Your task to perform on an android device: open app "Gmail" (install if not already installed), go to login, and select forgot password Image 0: 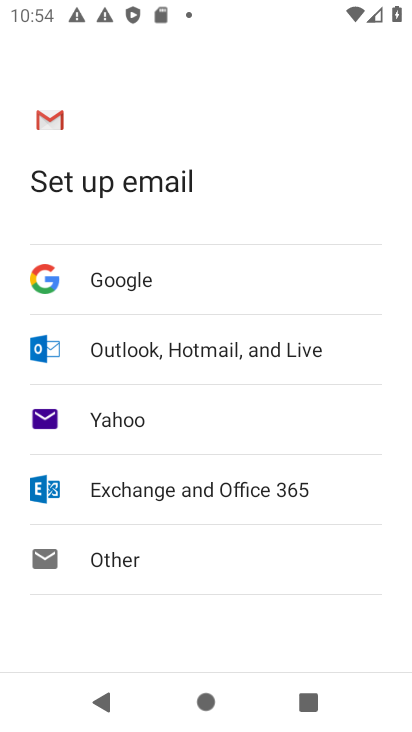
Step 0: press back button
Your task to perform on an android device: open app "Gmail" (install if not already installed), go to login, and select forgot password Image 1: 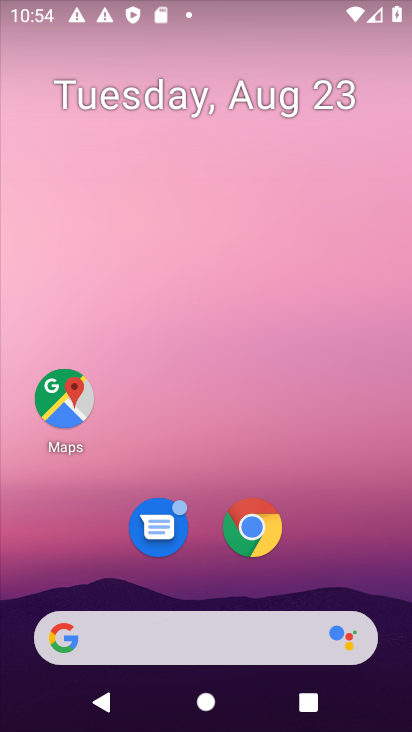
Step 1: drag from (222, 579) to (352, 48)
Your task to perform on an android device: open app "Gmail" (install if not already installed), go to login, and select forgot password Image 2: 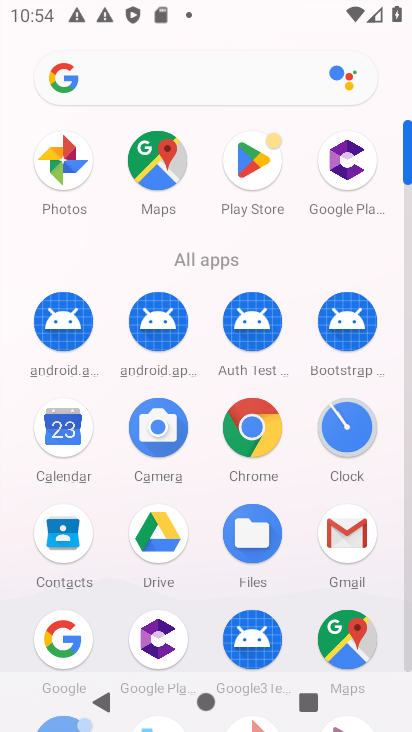
Step 2: click (250, 160)
Your task to perform on an android device: open app "Gmail" (install if not already installed), go to login, and select forgot password Image 3: 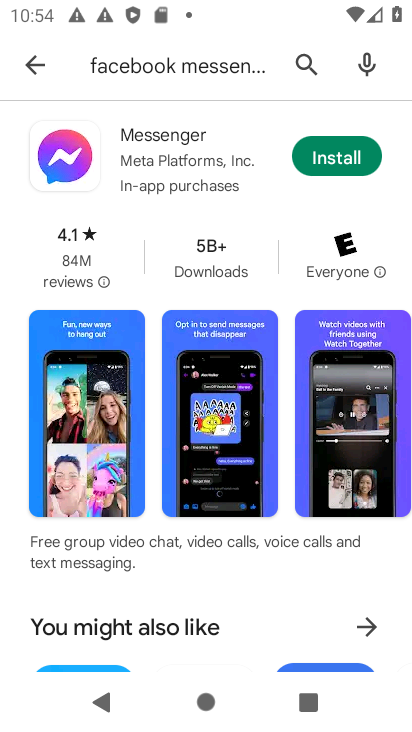
Step 3: click (297, 63)
Your task to perform on an android device: open app "Gmail" (install if not already installed), go to login, and select forgot password Image 4: 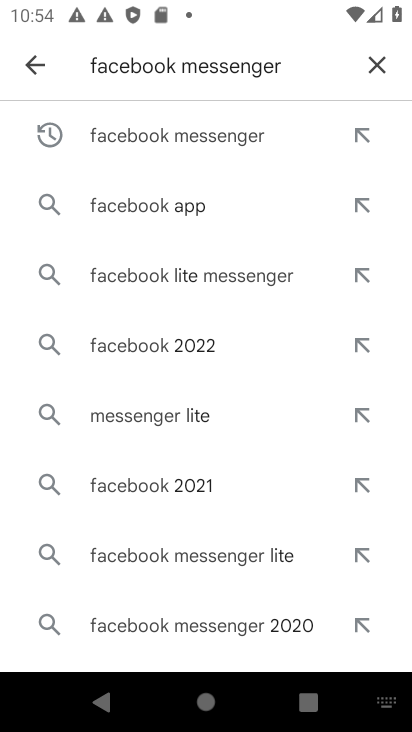
Step 4: click (370, 68)
Your task to perform on an android device: open app "Gmail" (install if not already installed), go to login, and select forgot password Image 5: 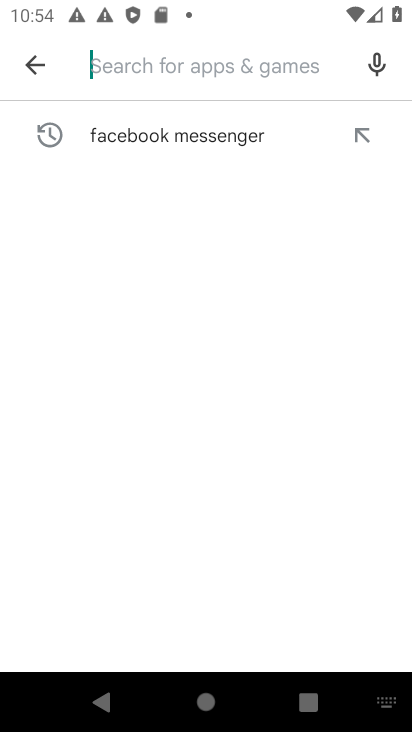
Step 5: click (162, 69)
Your task to perform on an android device: open app "Gmail" (install if not already installed), go to login, and select forgot password Image 6: 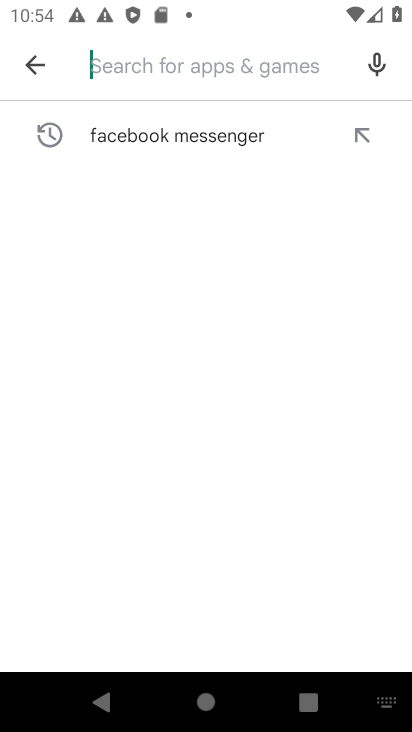
Step 6: type "Gmail"
Your task to perform on an android device: open app "Gmail" (install if not already installed), go to login, and select forgot password Image 7: 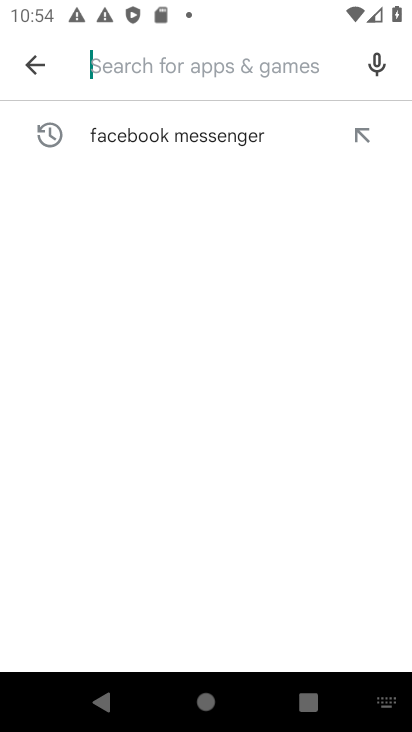
Step 7: click (268, 485)
Your task to perform on an android device: open app "Gmail" (install if not already installed), go to login, and select forgot password Image 8: 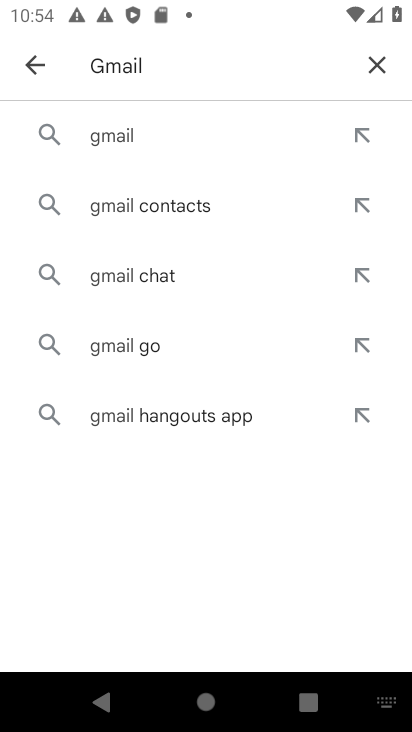
Step 8: click (134, 122)
Your task to perform on an android device: open app "Gmail" (install if not already installed), go to login, and select forgot password Image 9: 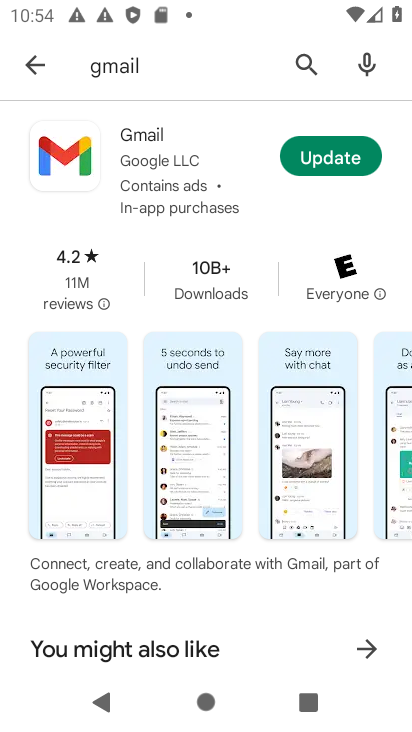
Step 9: click (179, 177)
Your task to perform on an android device: open app "Gmail" (install if not already installed), go to login, and select forgot password Image 10: 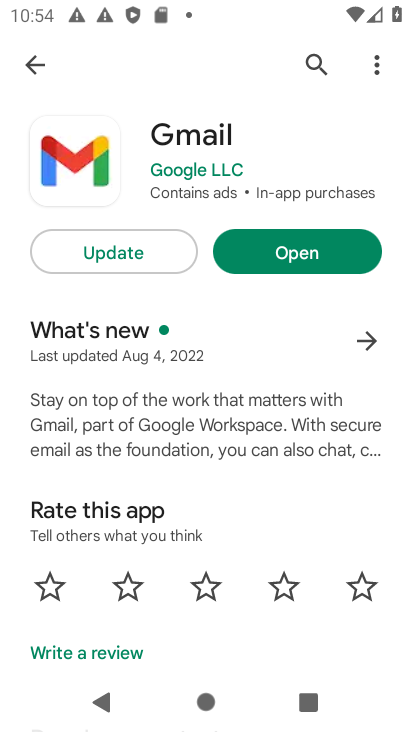
Step 10: click (322, 262)
Your task to perform on an android device: open app "Gmail" (install if not already installed), go to login, and select forgot password Image 11: 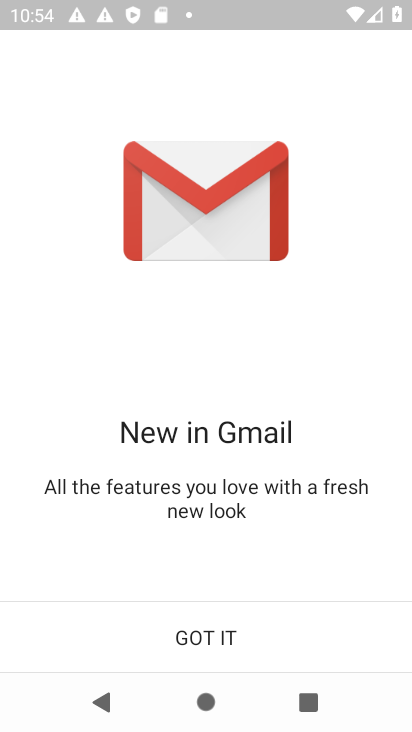
Step 11: click (176, 643)
Your task to perform on an android device: open app "Gmail" (install if not already installed), go to login, and select forgot password Image 12: 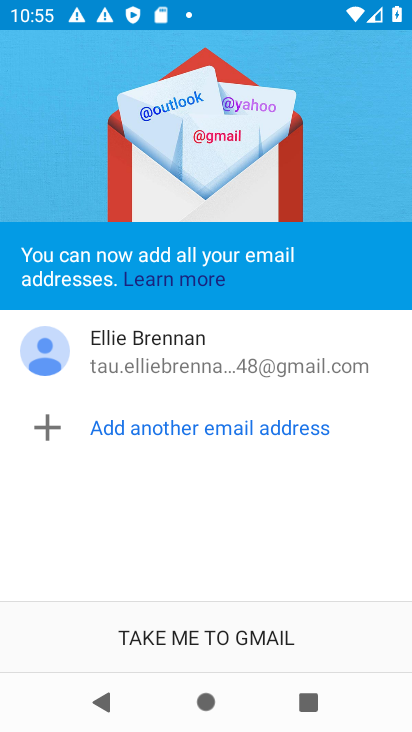
Step 12: click (161, 346)
Your task to perform on an android device: open app "Gmail" (install if not already installed), go to login, and select forgot password Image 13: 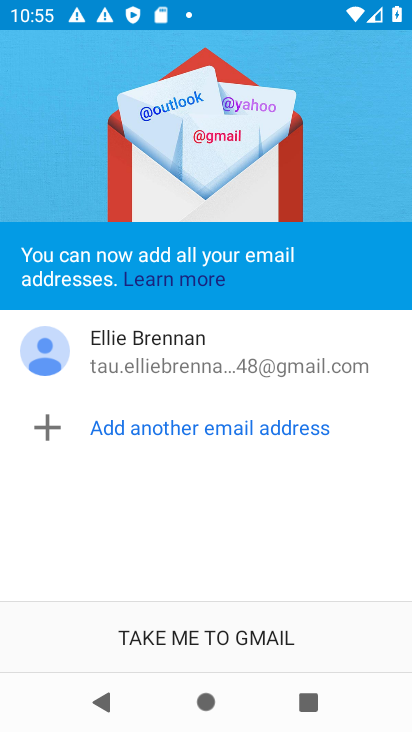
Step 13: task complete